Your task to perform on an android device: uninstall "Adobe Acrobat Reader: Edit PDF" Image 0: 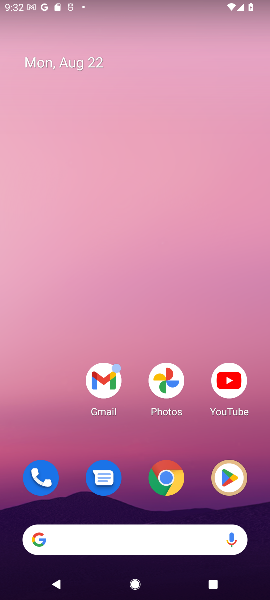
Step 0: click (235, 485)
Your task to perform on an android device: uninstall "Adobe Acrobat Reader: Edit PDF" Image 1: 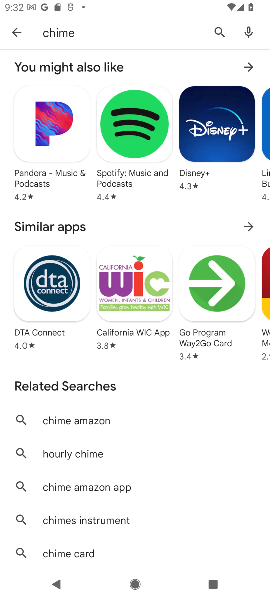
Step 1: click (221, 38)
Your task to perform on an android device: uninstall "Adobe Acrobat Reader: Edit PDF" Image 2: 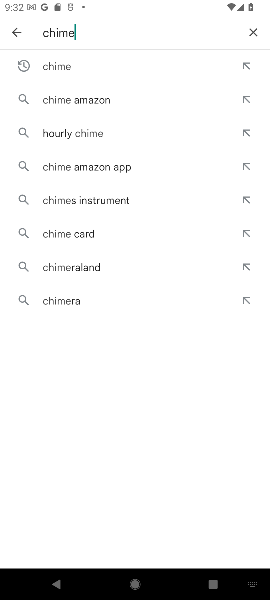
Step 2: click (249, 38)
Your task to perform on an android device: uninstall "Adobe Acrobat Reader: Edit PDF" Image 3: 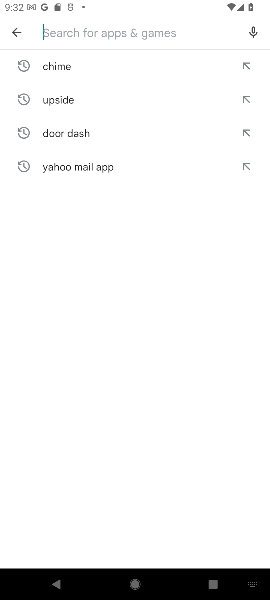
Step 3: type "adobe"
Your task to perform on an android device: uninstall "Adobe Acrobat Reader: Edit PDF" Image 4: 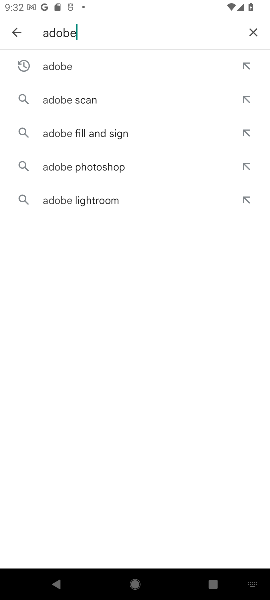
Step 4: click (114, 56)
Your task to perform on an android device: uninstall "Adobe Acrobat Reader: Edit PDF" Image 5: 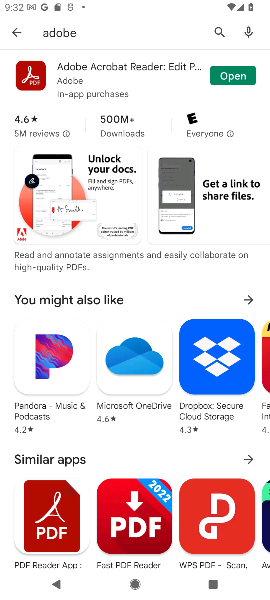
Step 5: click (226, 69)
Your task to perform on an android device: uninstall "Adobe Acrobat Reader: Edit PDF" Image 6: 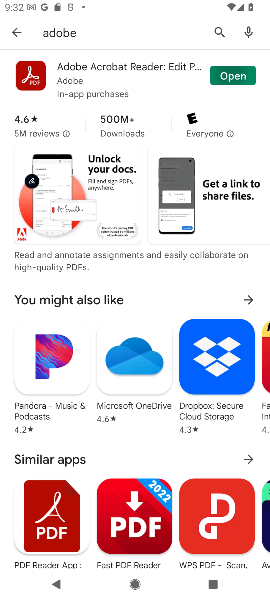
Step 6: task complete